Your task to perform on an android device: open a bookmark in the chrome app Image 0: 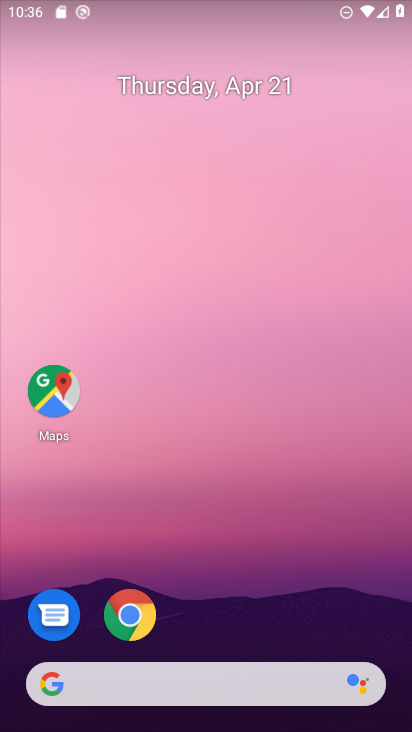
Step 0: click (127, 614)
Your task to perform on an android device: open a bookmark in the chrome app Image 1: 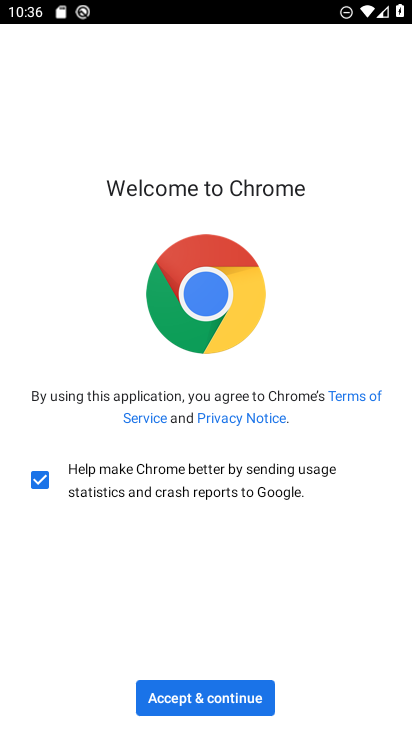
Step 1: click (221, 694)
Your task to perform on an android device: open a bookmark in the chrome app Image 2: 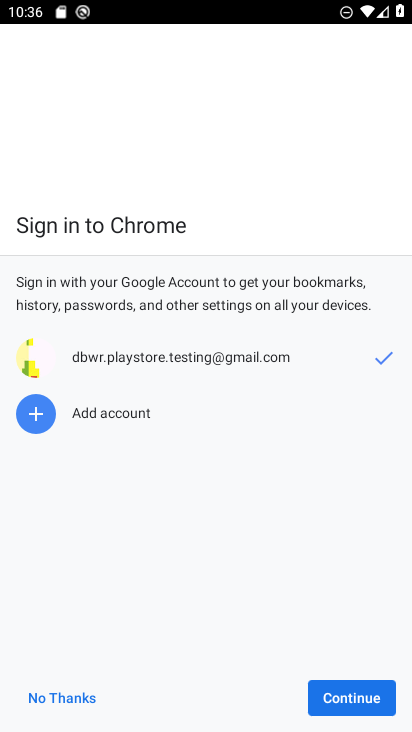
Step 2: click (339, 691)
Your task to perform on an android device: open a bookmark in the chrome app Image 3: 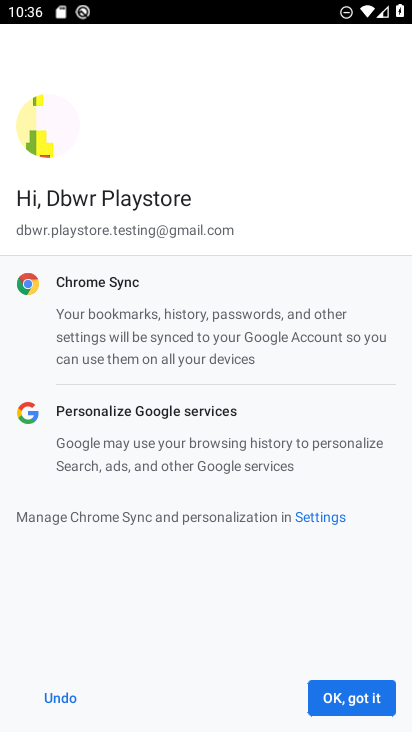
Step 3: click (342, 701)
Your task to perform on an android device: open a bookmark in the chrome app Image 4: 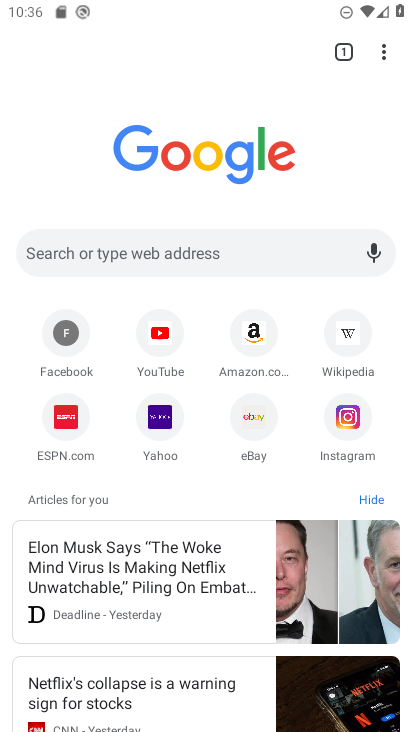
Step 4: drag from (383, 52) to (237, 197)
Your task to perform on an android device: open a bookmark in the chrome app Image 5: 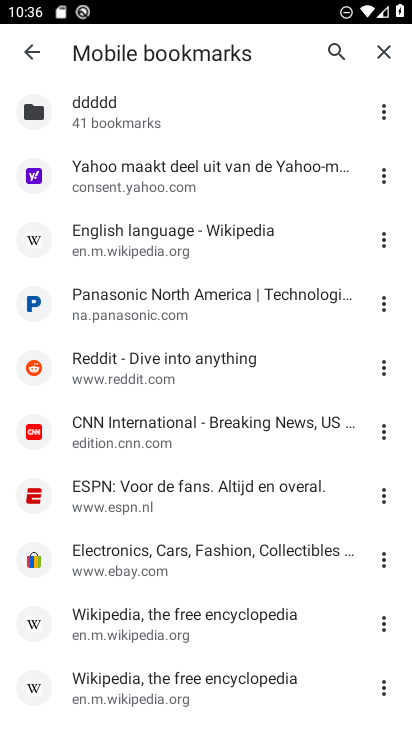
Step 5: click (108, 239)
Your task to perform on an android device: open a bookmark in the chrome app Image 6: 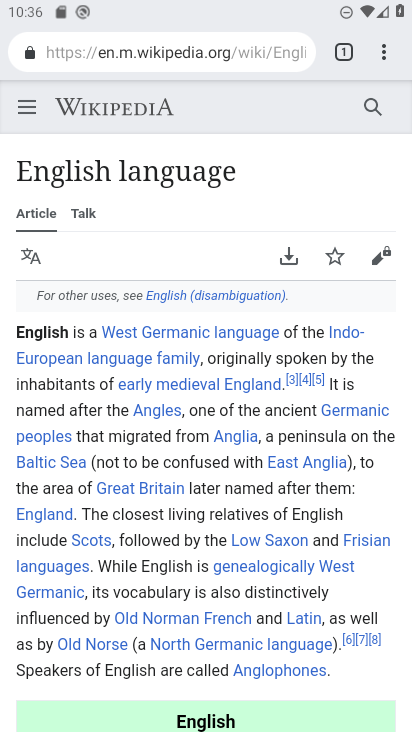
Step 6: task complete